Your task to perform on an android device: toggle show notifications on the lock screen Image 0: 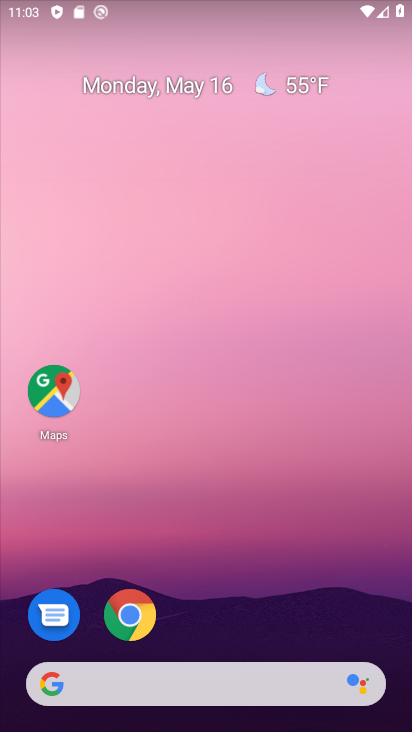
Step 0: press home button
Your task to perform on an android device: toggle show notifications on the lock screen Image 1: 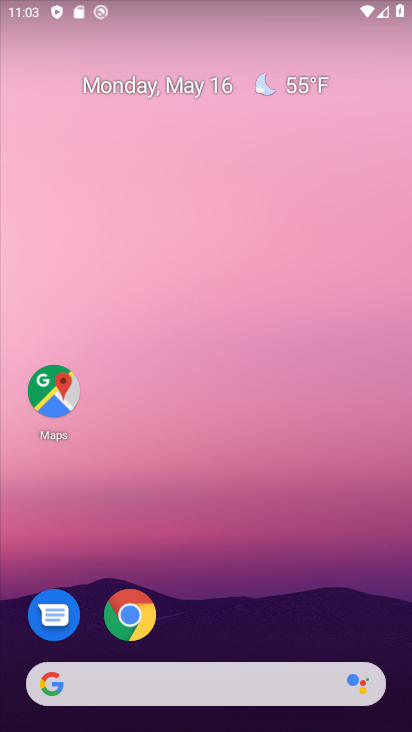
Step 1: drag from (265, 604) to (269, 79)
Your task to perform on an android device: toggle show notifications on the lock screen Image 2: 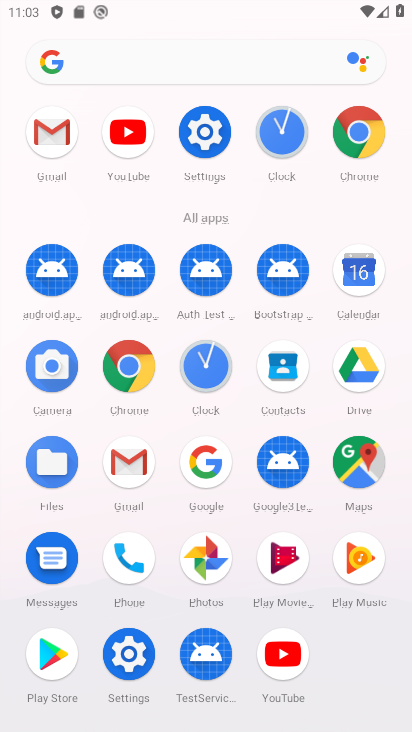
Step 2: click (200, 135)
Your task to perform on an android device: toggle show notifications on the lock screen Image 3: 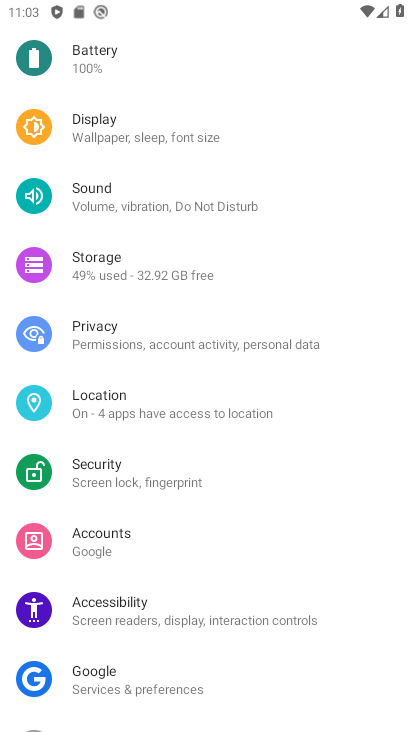
Step 3: drag from (230, 85) to (209, 519)
Your task to perform on an android device: toggle show notifications on the lock screen Image 4: 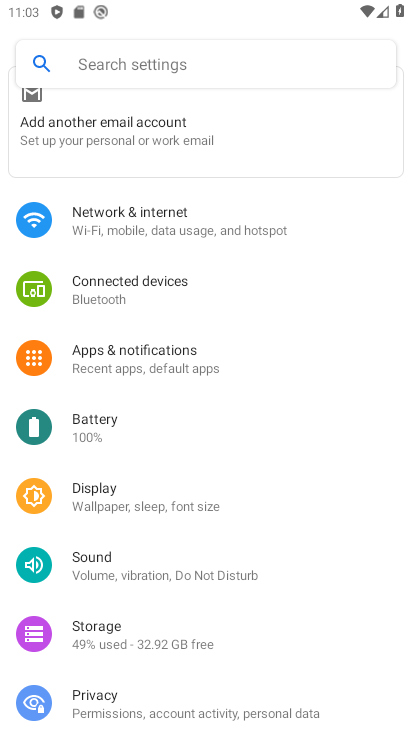
Step 4: click (133, 358)
Your task to perform on an android device: toggle show notifications on the lock screen Image 5: 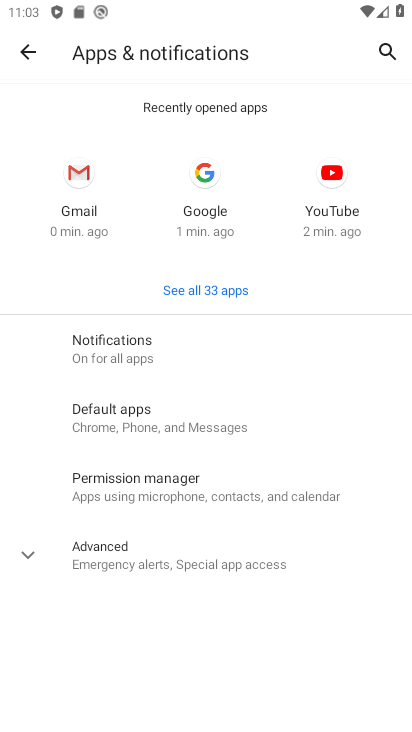
Step 5: click (126, 349)
Your task to perform on an android device: toggle show notifications on the lock screen Image 6: 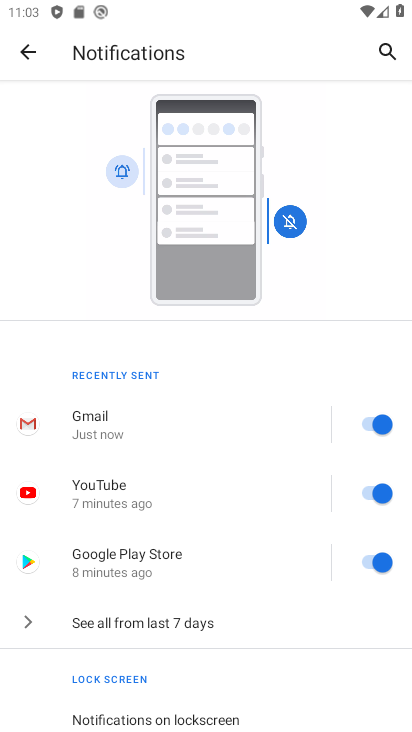
Step 6: click (199, 709)
Your task to perform on an android device: toggle show notifications on the lock screen Image 7: 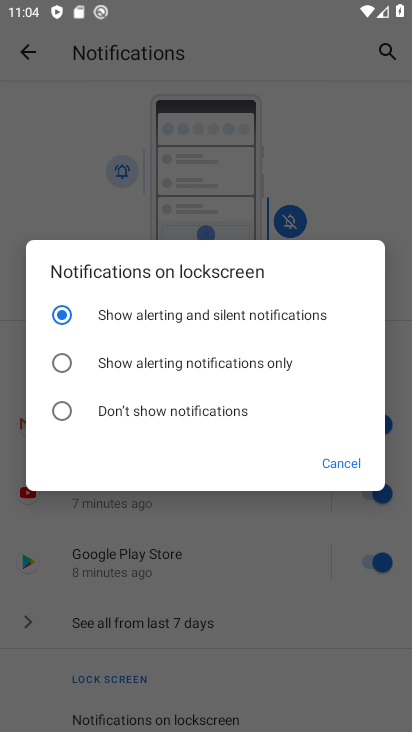
Step 7: click (119, 360)
Your task to perform on an android device: toggle show notifications on the lock screen Image 8: 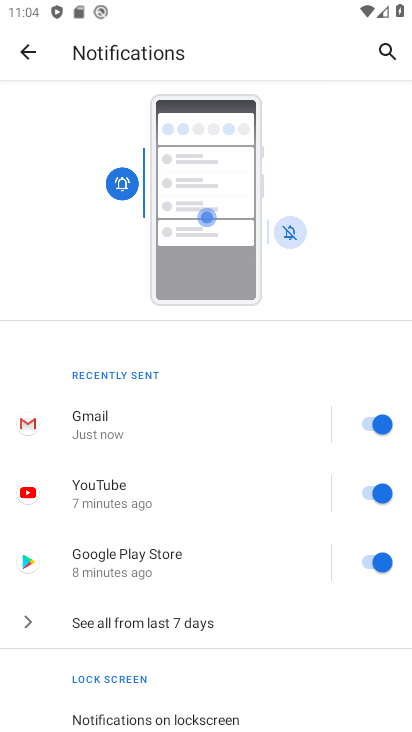
Step 8: task complete